Your task to perform on an android device: Open ESPN.com Image 0: 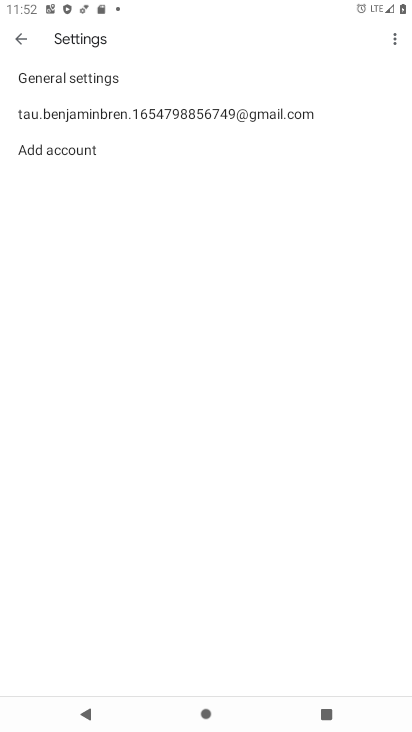
Step 0: press home button
Your task to perform on an android device: Open ESPN.com Image 1: 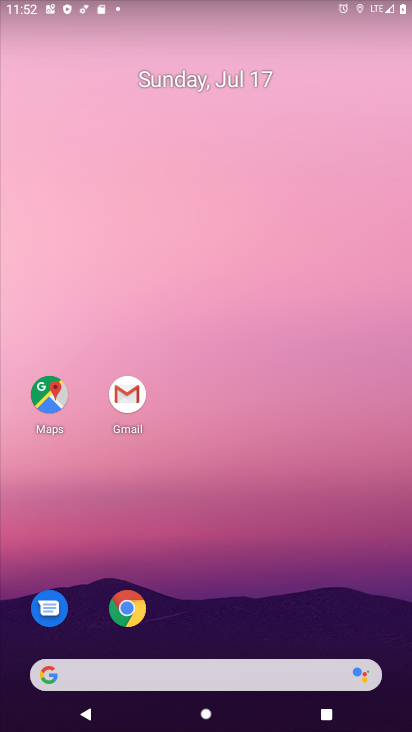
Step 1: click (146, 599)
Your task to perform on an android device: Open ESPN.com Image 2: 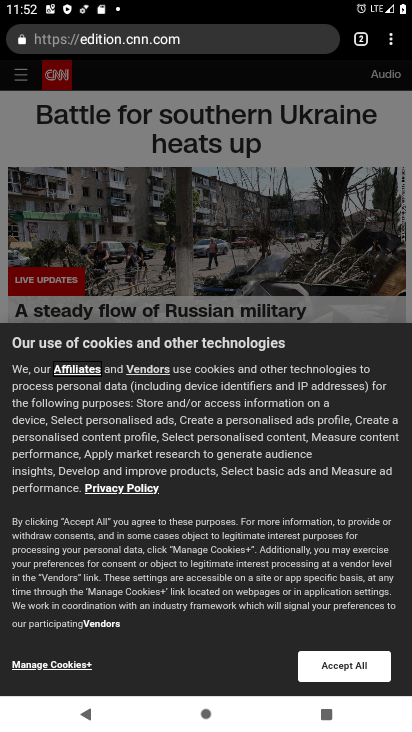
Step 2: click (364, 34)
Your task to perform on an android device: Open ESPN.com Image 3: 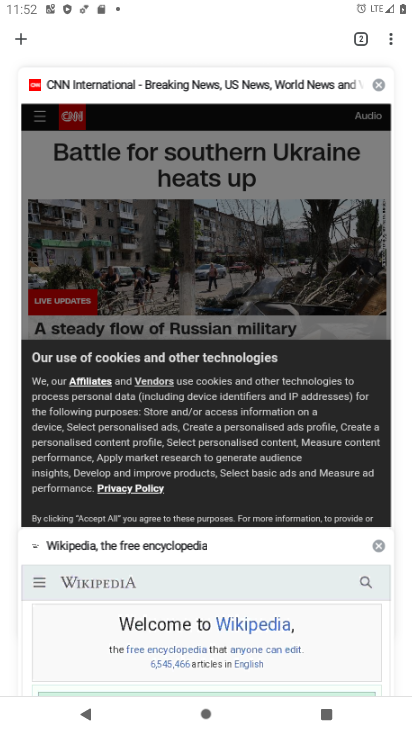
Step 3: click (23, 36)
Your task to perform on an android device: Open ESPN.com Image 4: 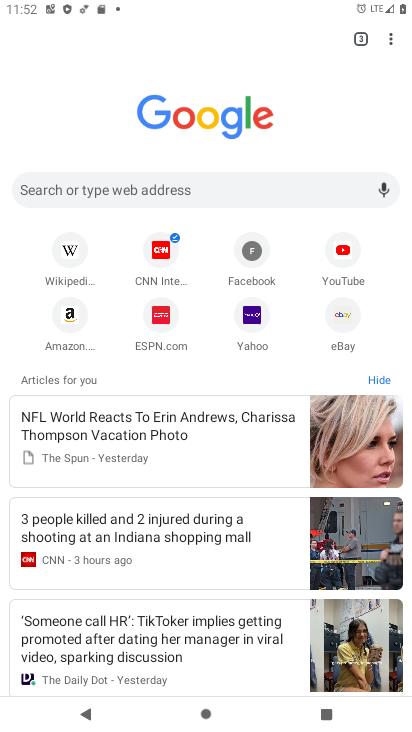
Step 4: click (157, 323)
Your task to perform on an android device: Open ESPN.com Image 5: 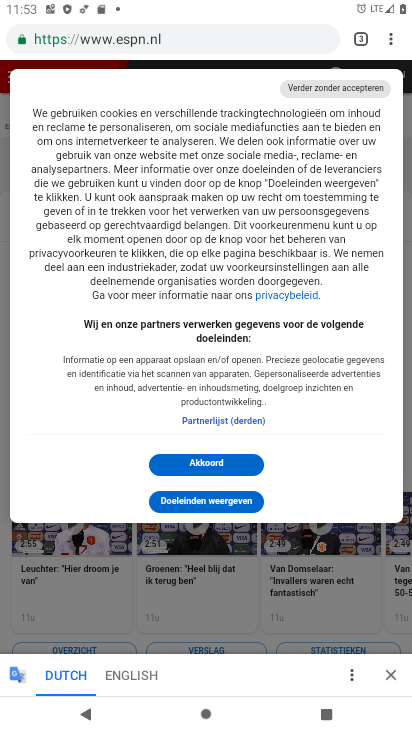
Step 5: click (212, 468)
Your task to perform on an android device: Open ESPN.com Image 6: 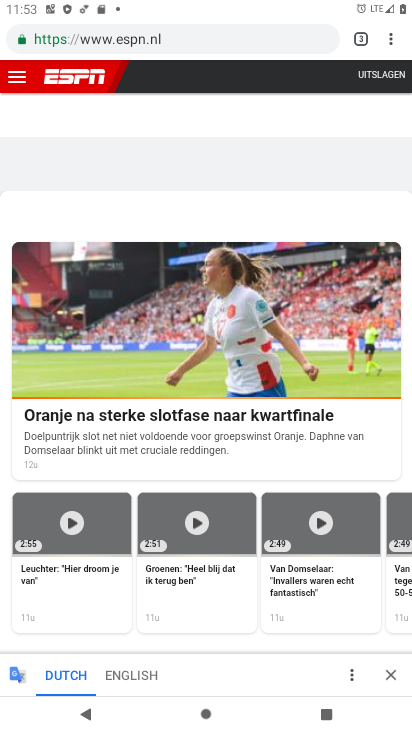
Step 6: task complete